Your task to perform on an android device: Open the stopwatch Image 0: 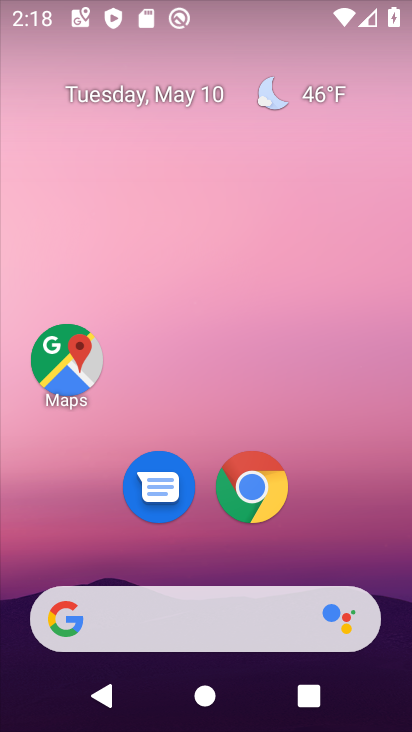
Step 0: drag from (342, 507) to (319, 50)
Your task to perform on an android device: Open the stopwatch Image 1: 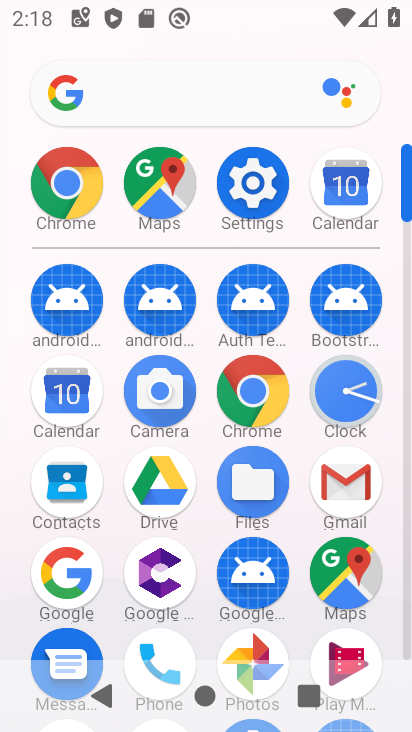
Step 1: click (341, 390)
Your task to perform on an android device: Open the stopwatch Image 2: 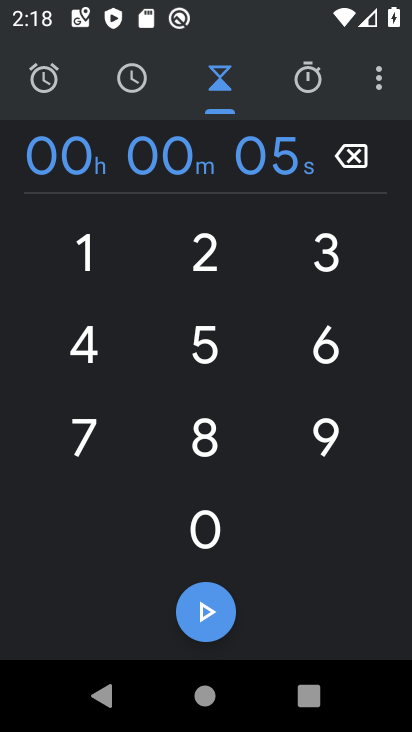
Step 2: click (310, 83)
Your task to perform on an android device: Open the stopwatch Image 3: 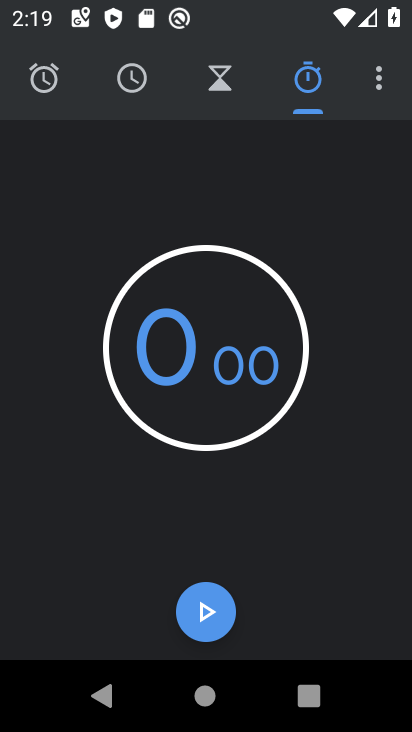
Step 3: task complete